Your task to perform on an android device: change notification settings in the gmail app Image 0: 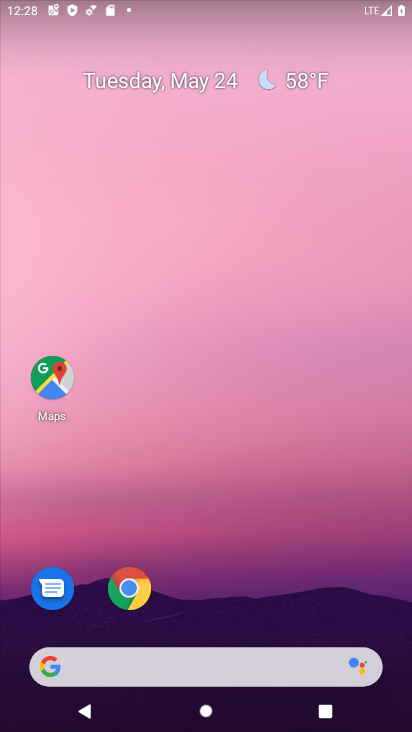
Step 0: drag from (193, 598) to (117, 6)
Your task to perform on an android device: change notification settings in the gmail app Image 1: 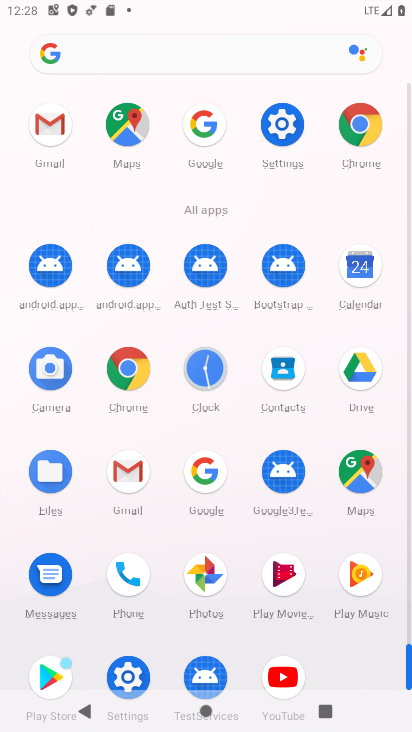
Step 1: click (39, 133)
Your task to perform on an android device: change notification settings in the gmail app Image 2: 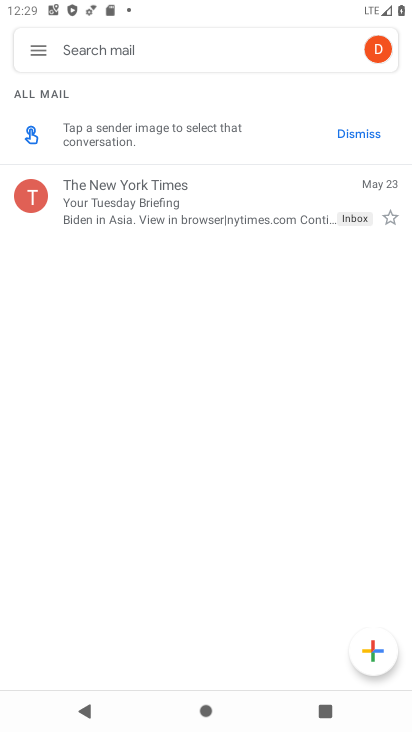
Step 2: click (45, 51)
Your task to perform on an android device: change notification settings in the gmail app Image 3: 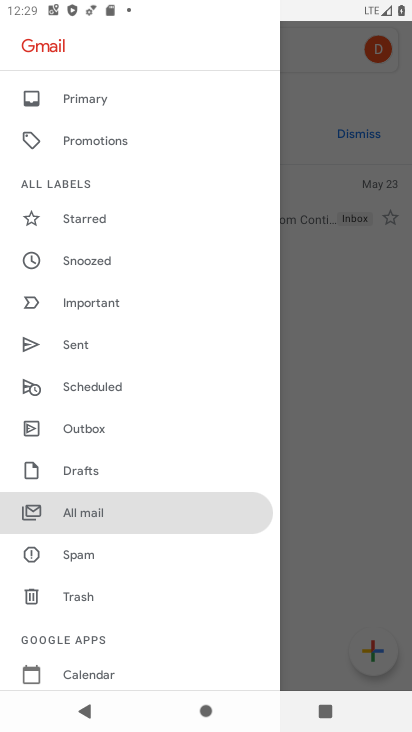
Step 3: drag from (96, 623) to (124, 340)
Your task to perform on an android device: change notification settings in the gmail app Image 4: 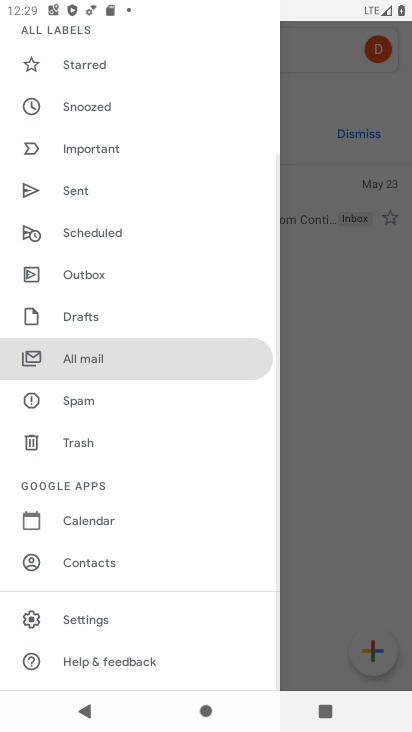
Step 4: click (106, 623)
Your task to perform on an android device: change notification settings in the gmail app Image 5: 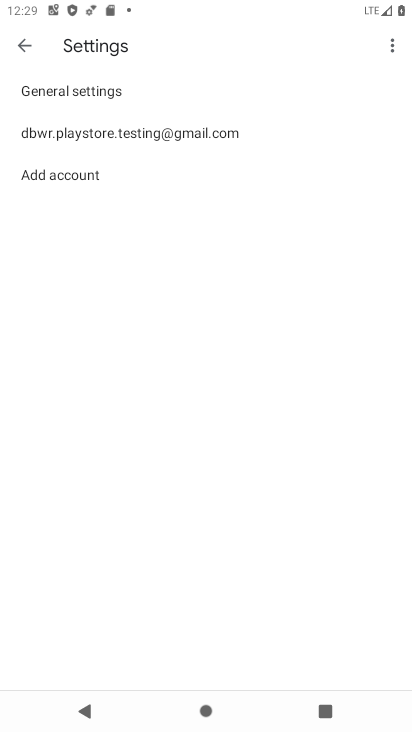
Step 5: click (141, 127)
Your task to perform on an android device: change notification settings in the gmail app Image 6: 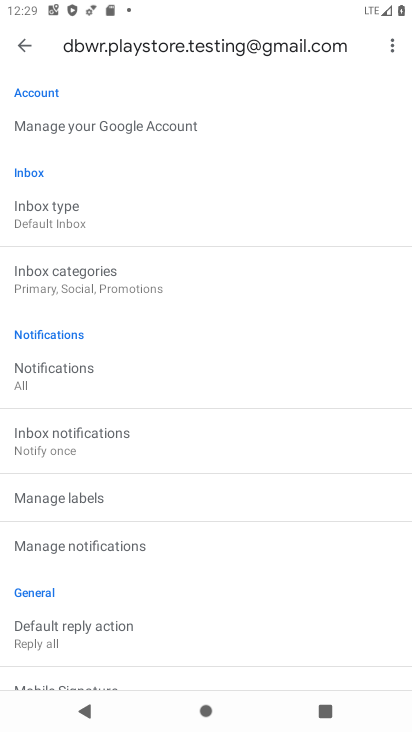
Step 6: click (60, 376)
Your task to perform on an android device: change notification settings in the gmail app Image 7: 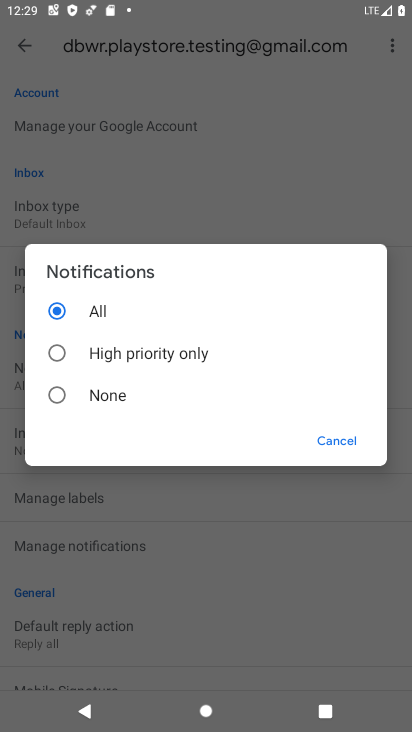
Step 7: click (56, 380)
Your task to perform on an android device: change notification settings in the gmail app Image 8: 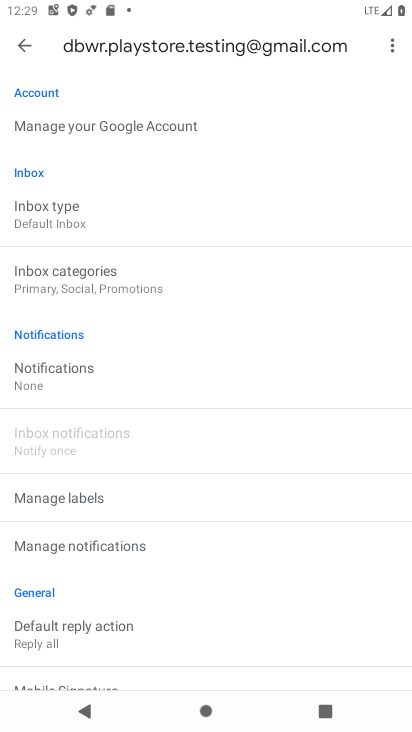
Step 8: task complete